Your task to perform on an android device: What is the news today? Image 0: 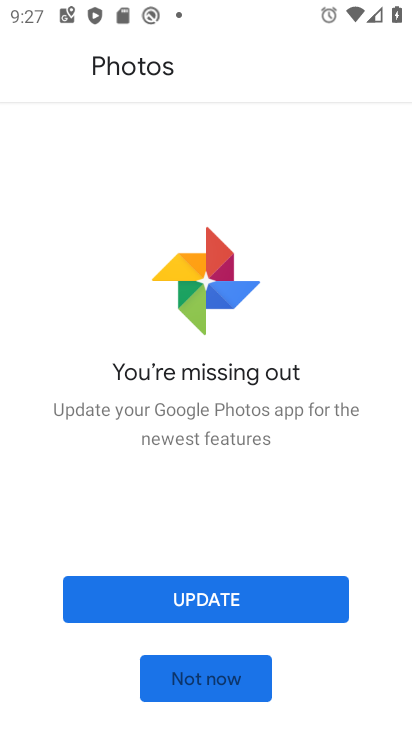
Step 0: press home button
Your task to perform on an android device: What is the news today? Image 1: 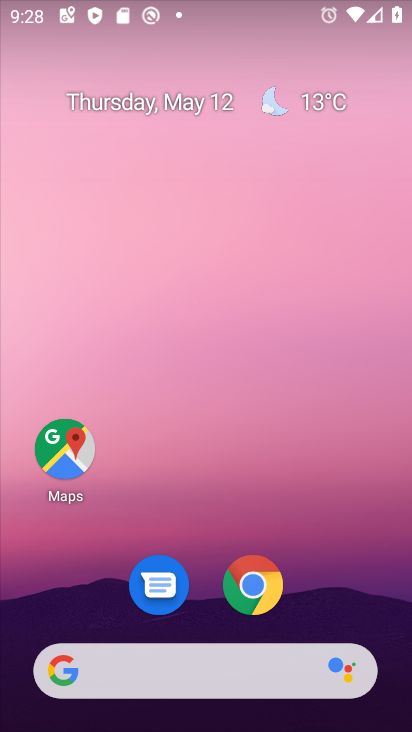
Step 1: click (202, 674)
Your task to perform on an android device: What is the news today? Image 2: 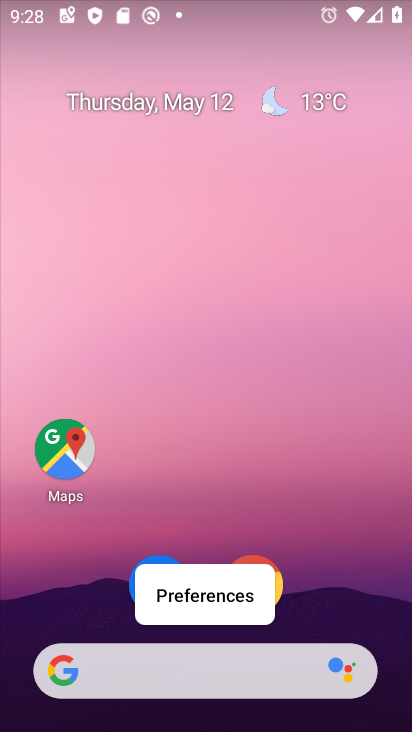
Step 2: click (195, 677)
Your task to perform on an android device: What is the news today? Image 3: 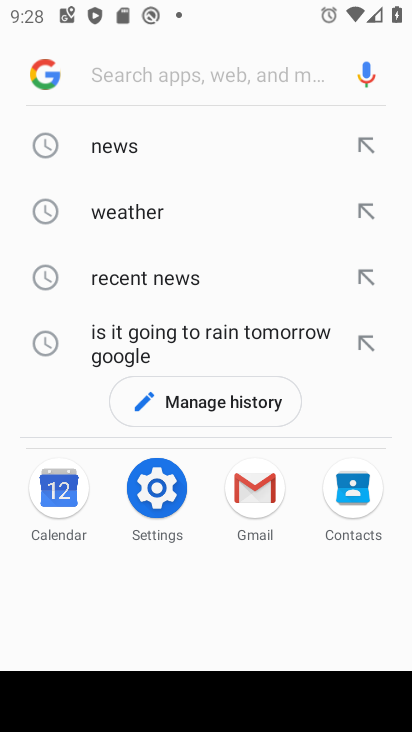
Step 3: click (95, 142)
Your task to perform on an android device: What is the news today? Image 4: 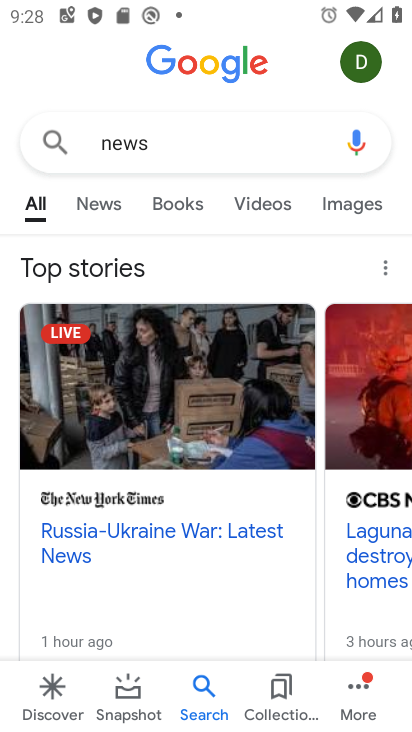
Step 4: task complete